Your task to perform on an android device: Go to Yahoo.com Image 0: 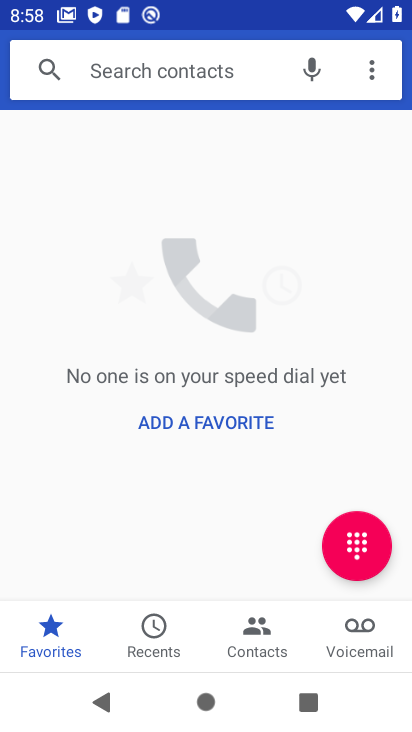
Step 0: press home button
Your task to perform on an android device: Go to Yahoo.com Image 1: 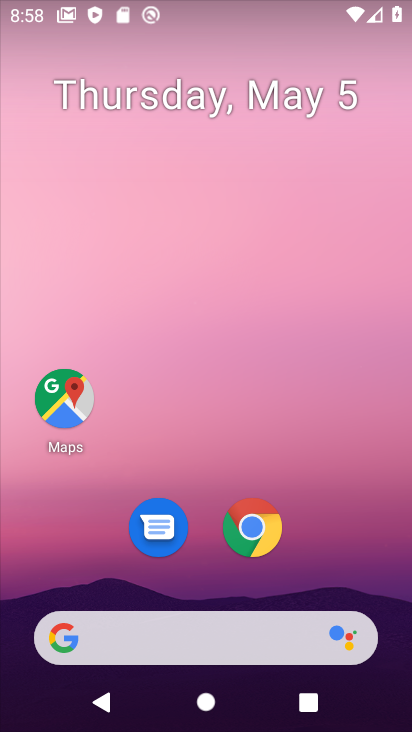
Step 1: click (238, 518)
Your task to perform on an android device: Go to Yahoo.com Image 2: 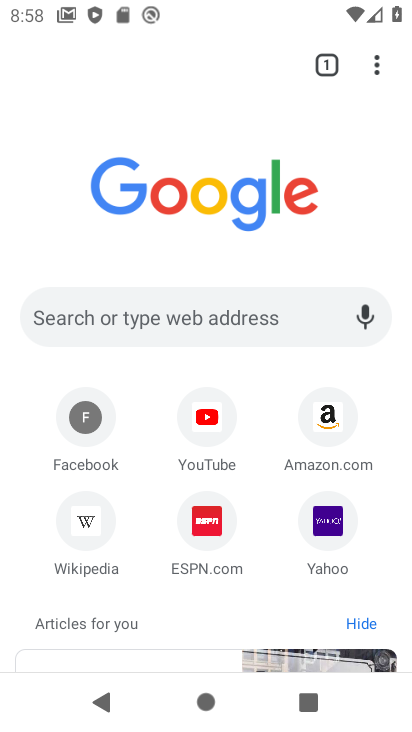
Step 2: click (339, 522)
Your task to perform on an android device: Go to Yahoo.com Image 3: 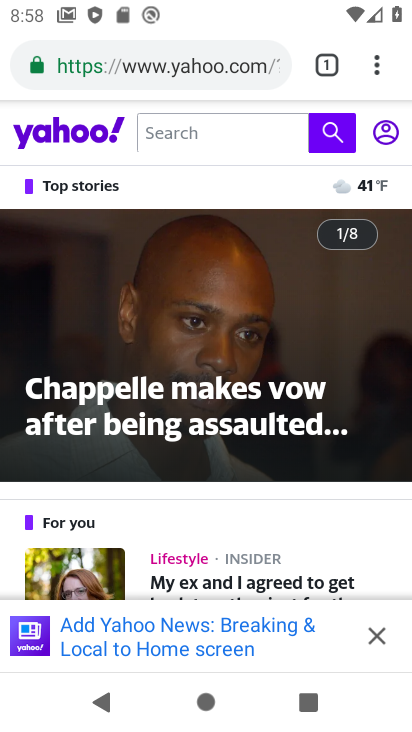
Step 3: task complete